Your task to perform on an android device: Go to Yahoo.com Image 0: 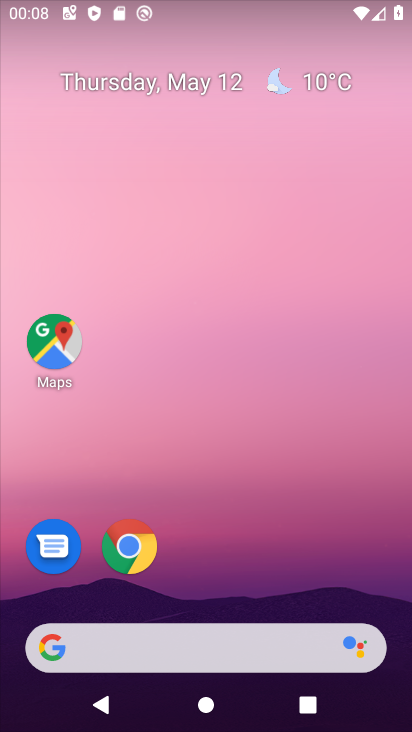
Step 0: click (132, 545)
Your task to perform on an android device: Go to Yahoo.com Image 1: 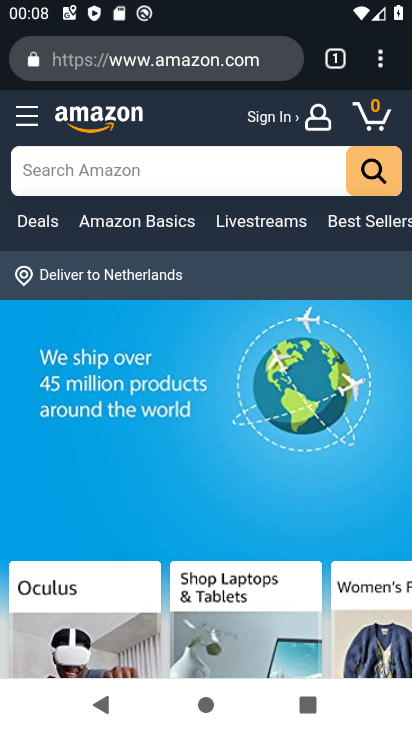
Step 1: click (138, 60)
Your task to perform on an android device: Go to Yahoo.com Image 2: 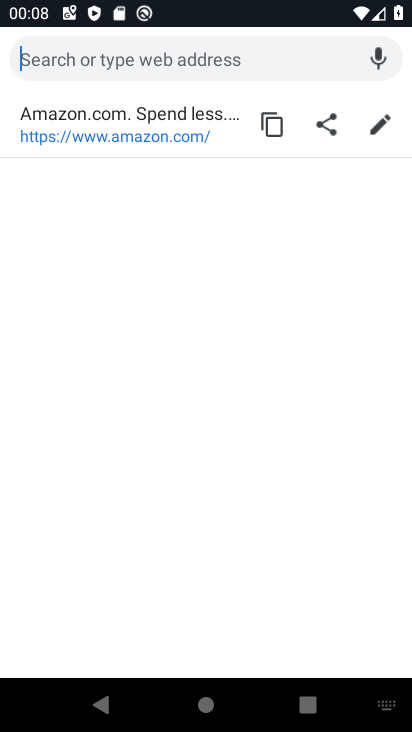
Step 2: type "Yahoo.com"
Your task to perform on an android device: Go to Yahoo.com Image 3: 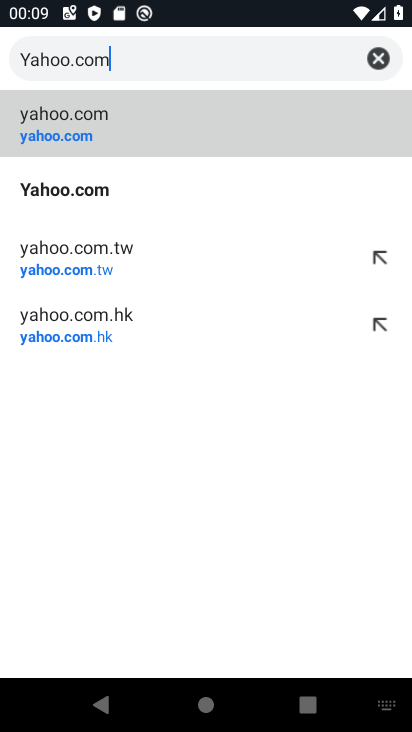
Step 3: click (63, 124)
Your task to perform on an android device: Go to Yahoo.com Image 4: 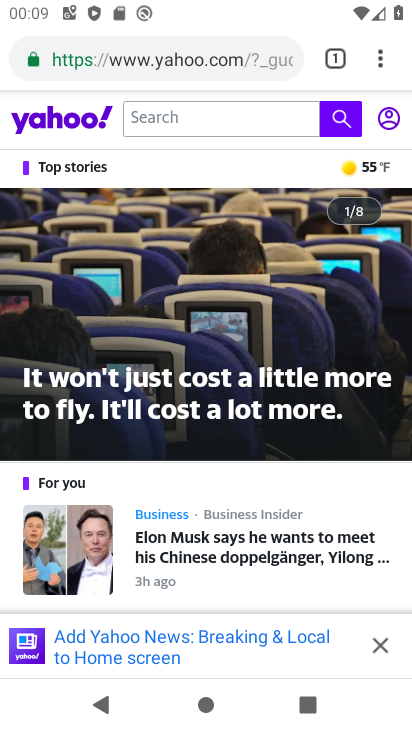
Step 4: task complete